Your task to perform on an android device: Open sound settings Image 0: 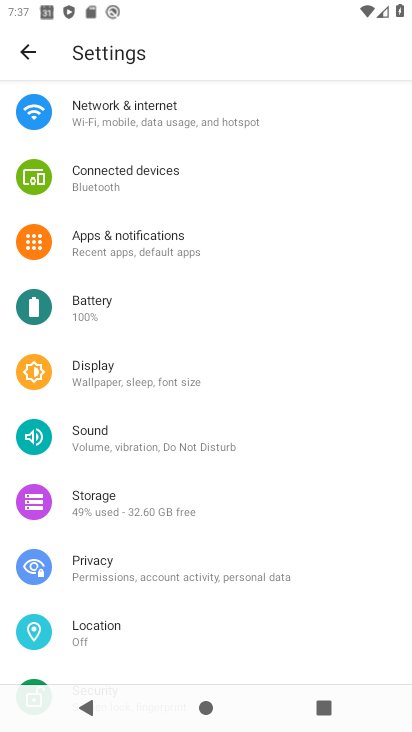
Step 0: click (93, 445)
Your task to perform on an android device: Open sound settings Image 1: 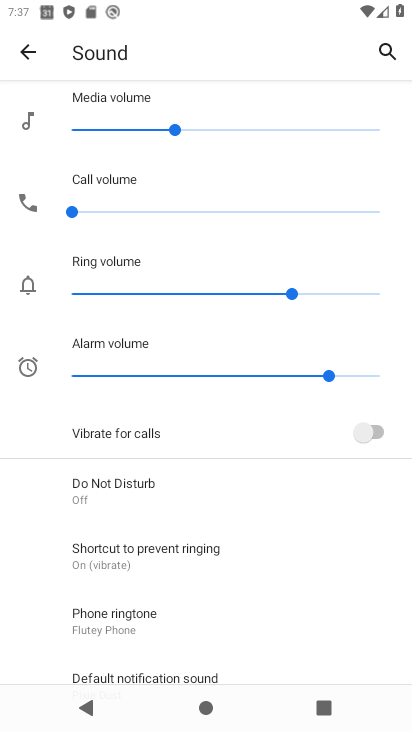
Step 1: task complete